Your task to perform on an android device: open chrome and create a bookmark for the current page Image 0: 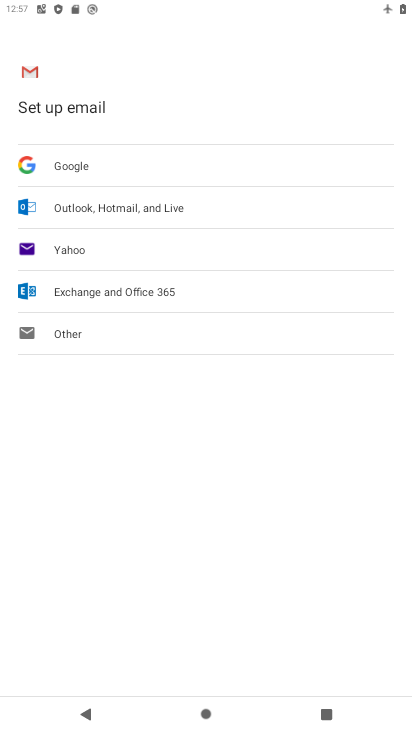
Step 0: press home button
Your task to perform on an android device: open chrome and create a bookmark for the current page Image 1: 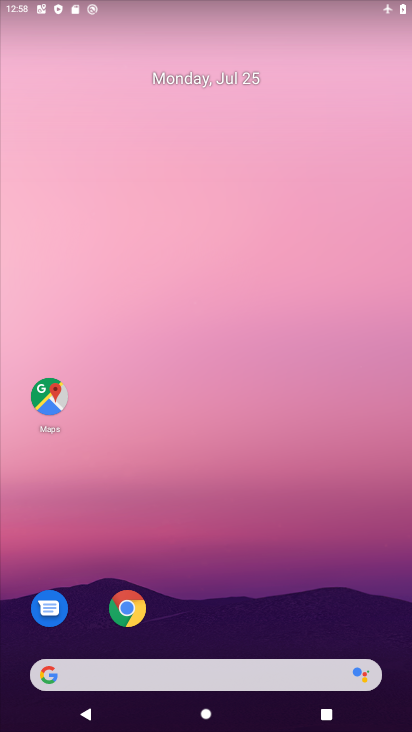
Step 1: click (130, 608)
Your task to perform on an android device: open chrome and create a bookmark for the current page Image 2: 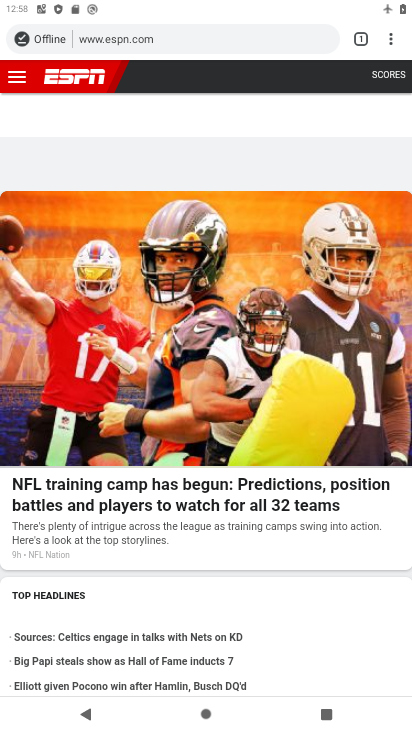
Step 2: click (387, 41)
Your task to perform on an android device: open chrome and create a bookmark for the current page Image 3: 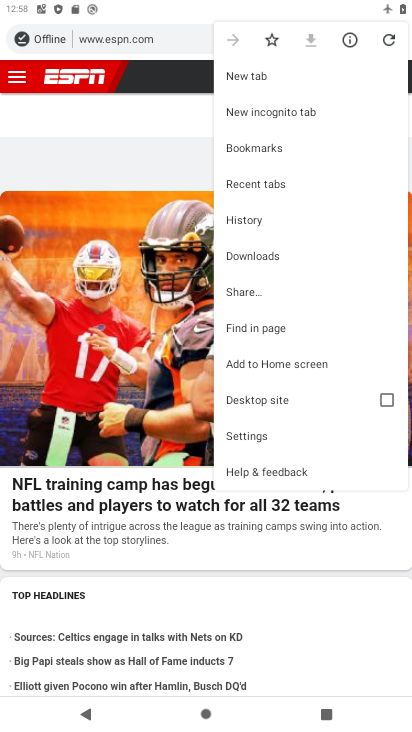
Step 3: click (268, 45)
Your task to perform on an android device: open chrome and create a bookmark for the current page Image 4: 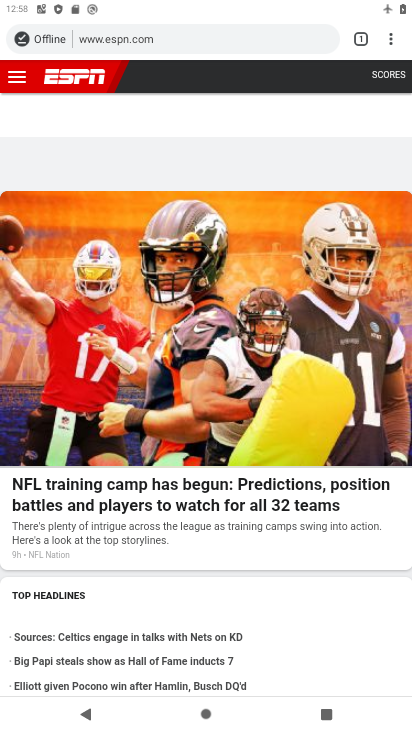
Step 4: click (389, 39)
Your task to perform on an android device: open chrome and create a bookmark for the current page Image 5: 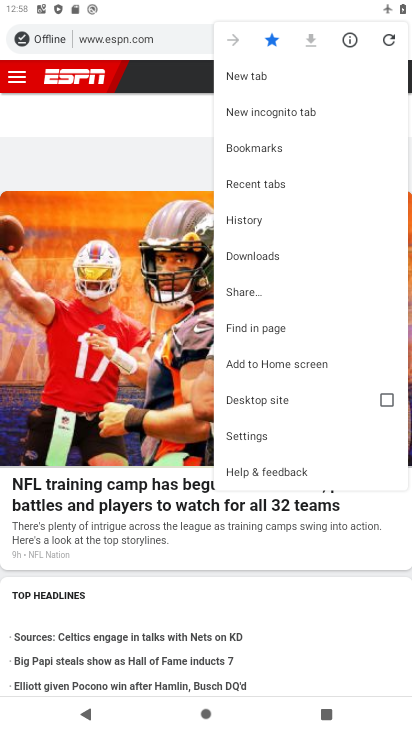
Step 5: task complete